Your task to perform on an android device: What's the weather going to be this weekend? Image 0: 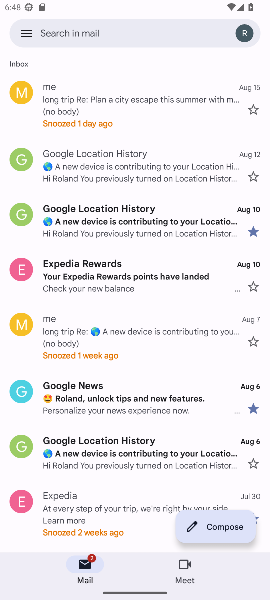
Step 0: press home button
Your task to perform on an android device: What's the weather going to be this weekend? Image 1: 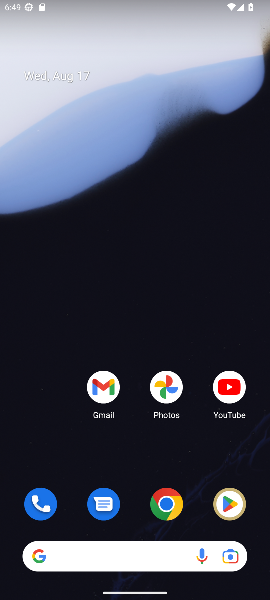
Step 1: drag from (131, 411) to (86, 95)
Your task to perform on an android device: What's the weather going to be this weekend? Image 2: 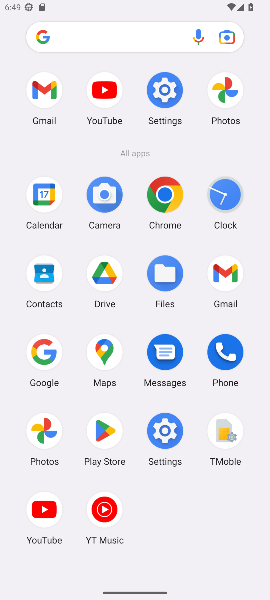
Step 2: click (175, 208)
Your task to perform on an android device: What's the weather going to be this weekend? Image 3: 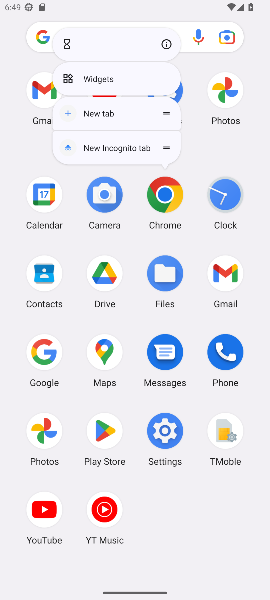
Step 3: click (163, 201)
Your task to perform on an android device: What's the weather going to be this weekend? Image 4: 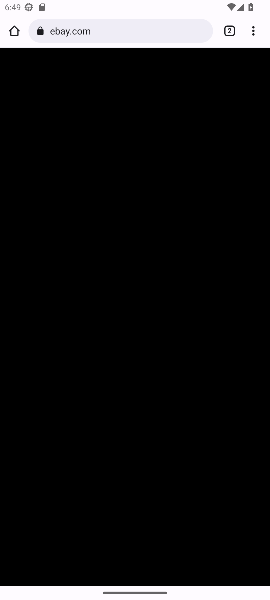
Step 4: click (233, 37)
Your task to perform on an android device: What's the weather going to be this weekend? Image 5: 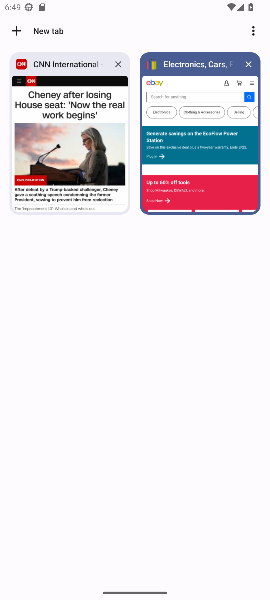
Step 5: click (29, 29)
Your task to perform on an android device: What's the weather going to be this weekend? Image 6: 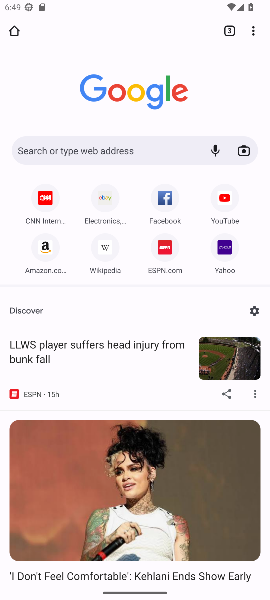
Step 6: click (104, 155)
Your task to perform on an android device: What's the weather going to be this weekend? Image 7: 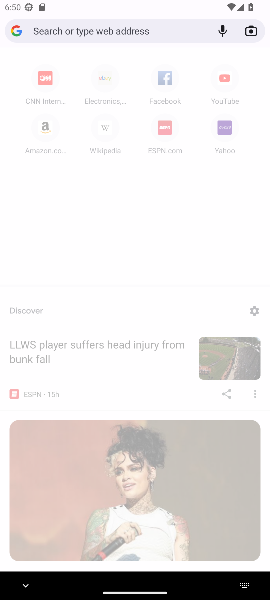
Step 7: type "weather"
Your task to perform on an android device: What's the weather going to be this weekend? Image 8: 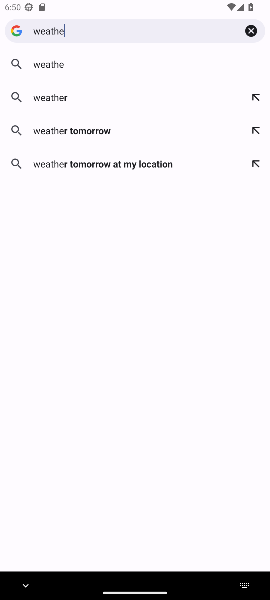
Step 8: type ""
Your task to perform on an android device: What's the weather going to be this weekend? Image 9: 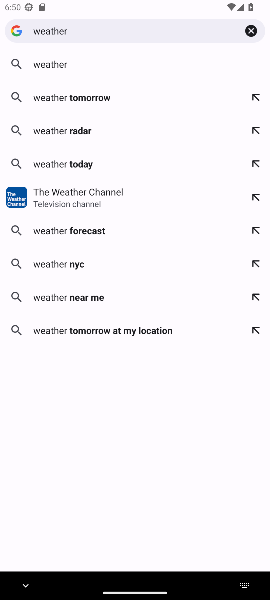
Step 9: click (103, 61)
Your task to perform on an android device: What's the weather going to be this weekend? Image 10: 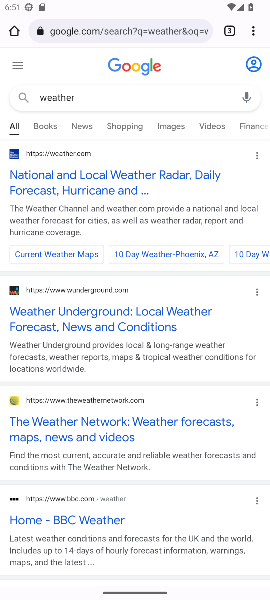
Step 10: task complete